Your task to perform on an android device: Go to notification settings Image 0: 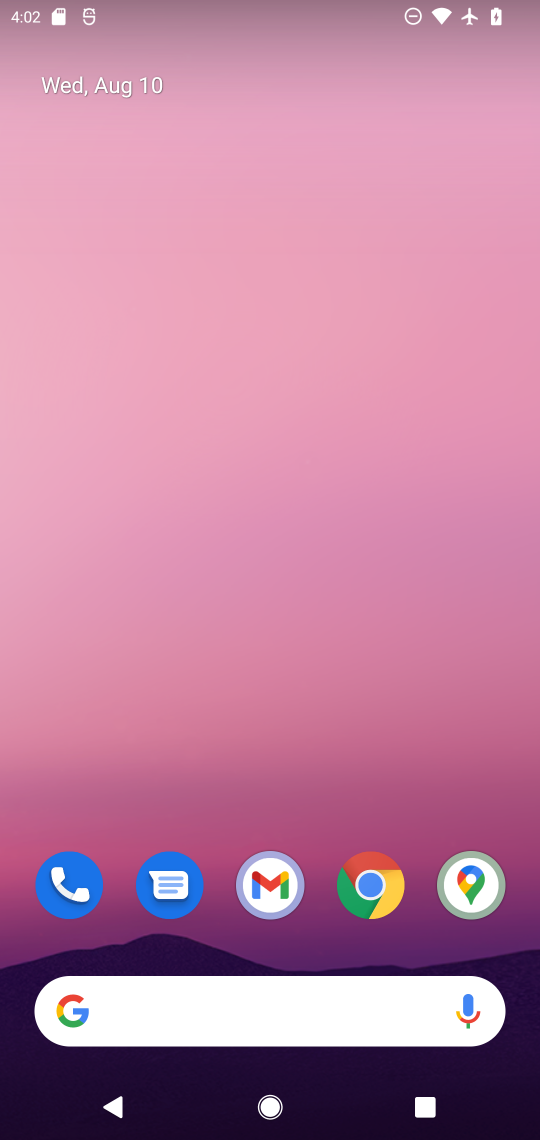
Step 0: drag from (321, 947) to (276, 151)
Your task to perform on an android device: Go to notification settings Image 1: 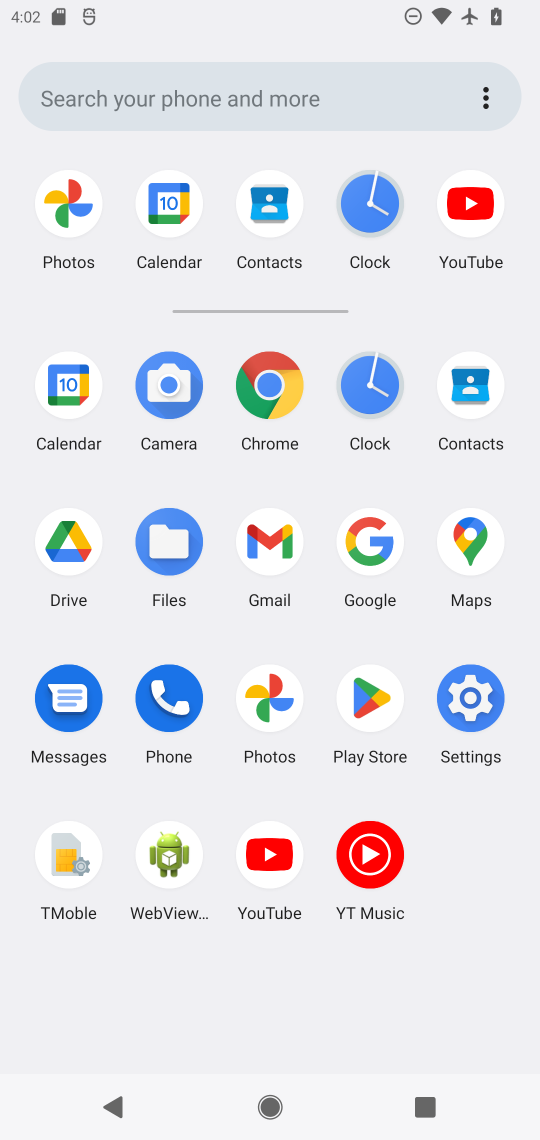
Step 1: click (473, 695)
Your task to perform on an android device: Go to notification settings Image 2: 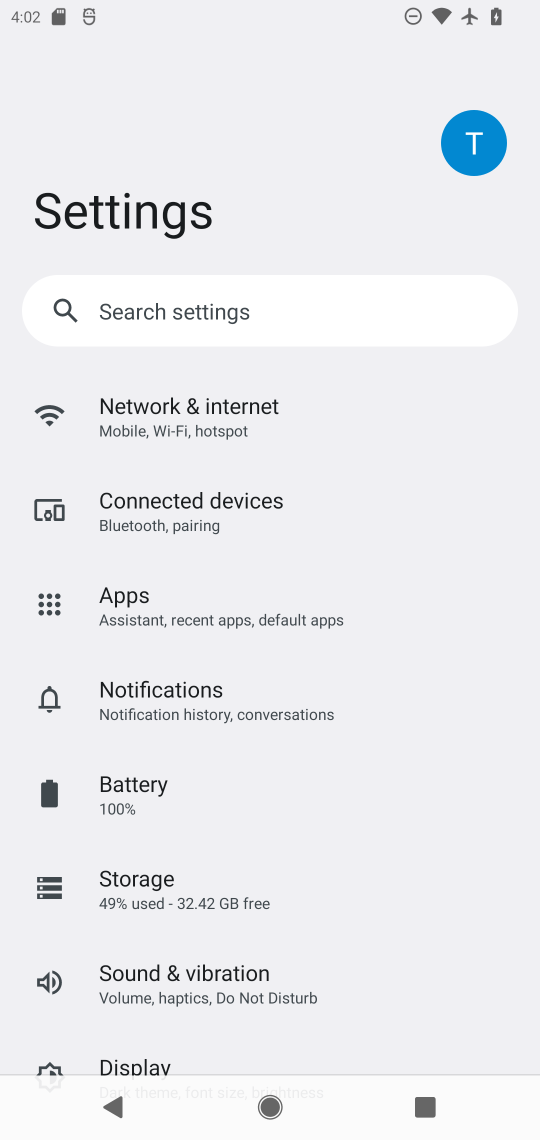
Step 2: click (176, 693)
Your task to perform on an android device: Go to notification settings Image 3: 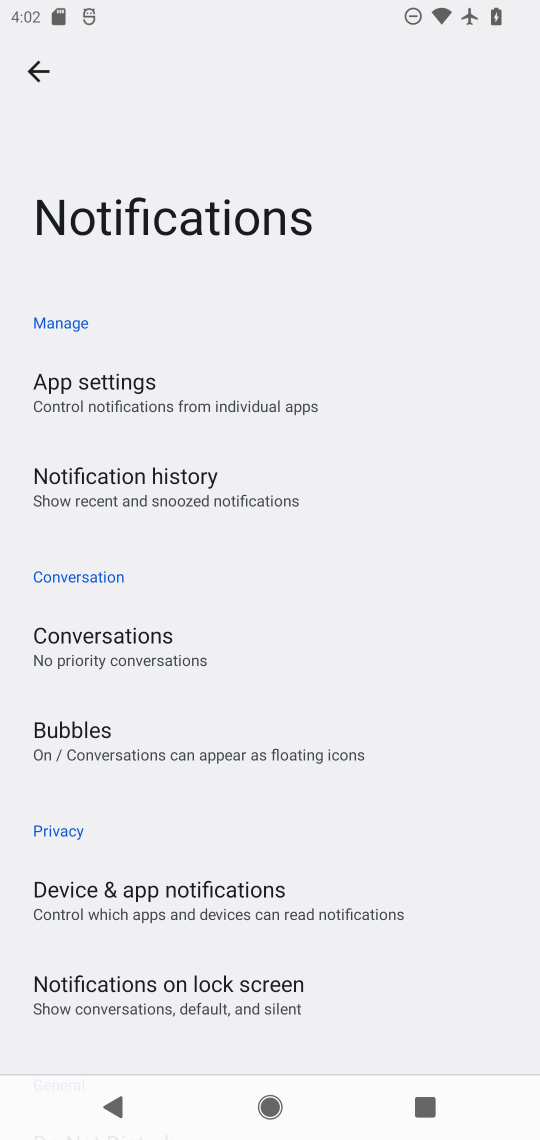
Step 3: task complete